Your task to perform on an android device: turn on wifi Image 0: 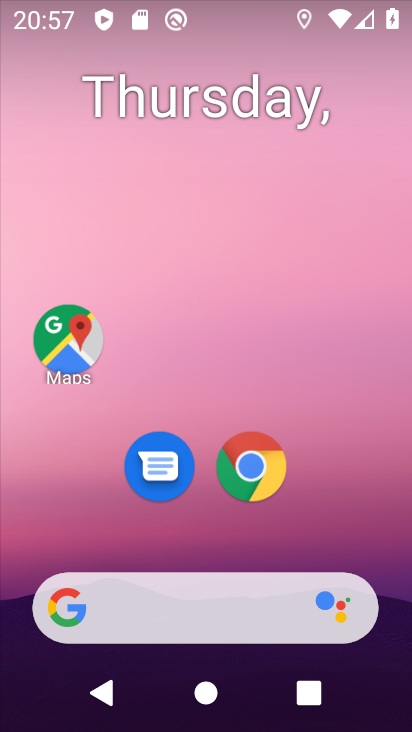
Step 0: drag from (206, 559) to (234, 14)
Your task to perform on an android device: turn on wifi Image 1: 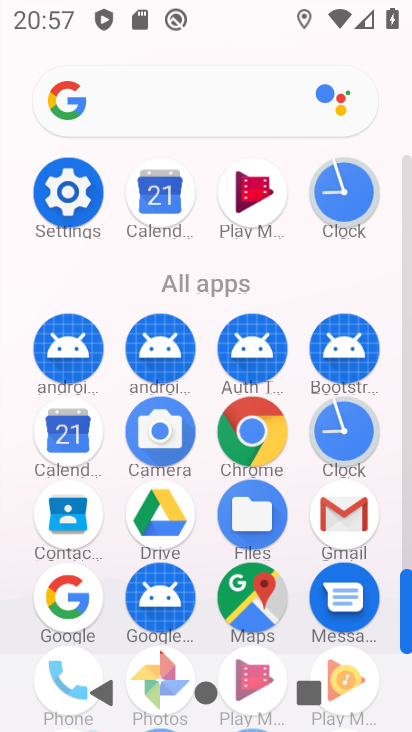
Step 1: click (56, 204)
Your task to perform on an android device: turn on wifi Image 2: 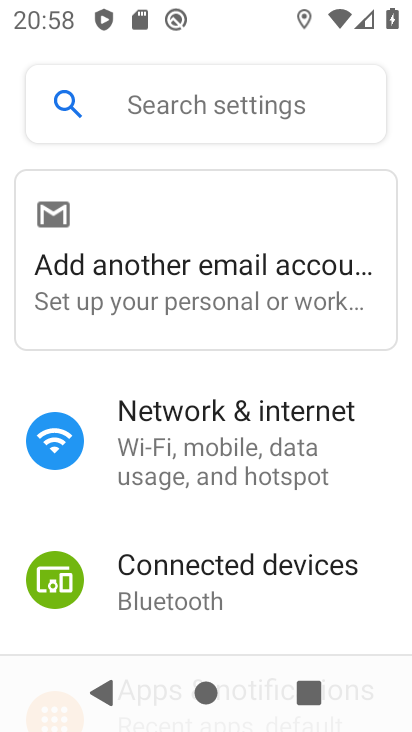
Step 2: click (205, 428)
Your task to perform on an android device: turn on wifi Image 3: 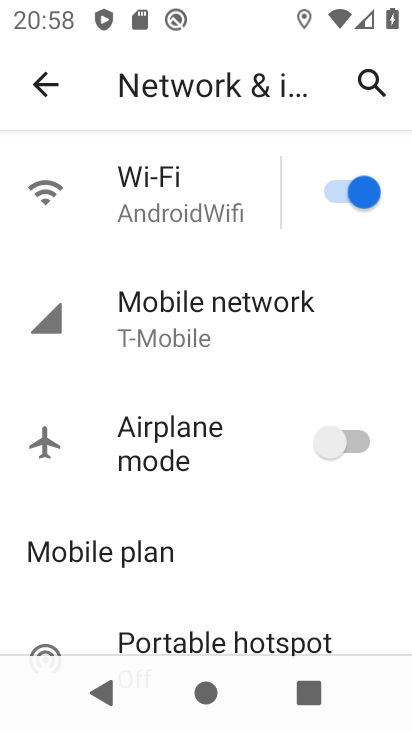
Step 3: click (210, 218)
Your task to perform on an android device: turn on wifi Image 4: 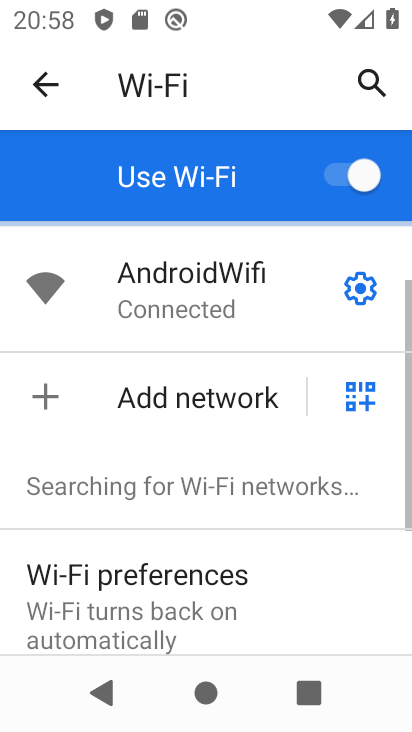
Step 4: task complete